Your task to perform on an android device: open sync settings in chrome Image 0: 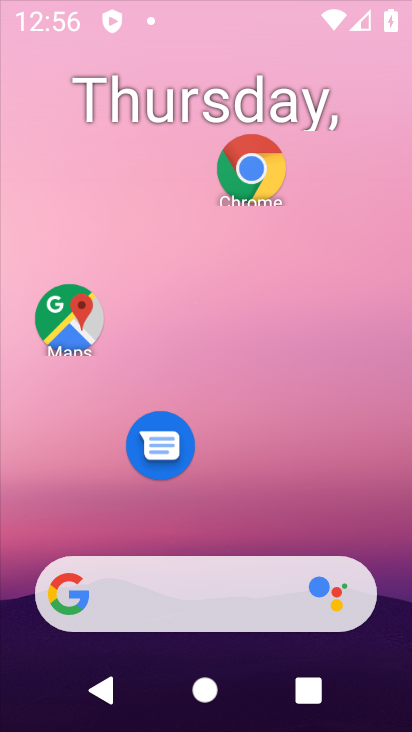
Step 0: click (202, 143)
Your task to perform on an android device: open sync settings in chrome Image 1: 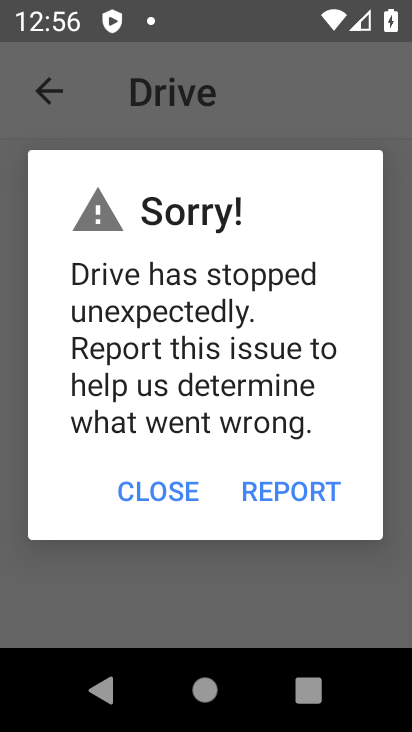
Step 1: press home button
Your task to perform on an android device: open sync settings in chrome Image 2: 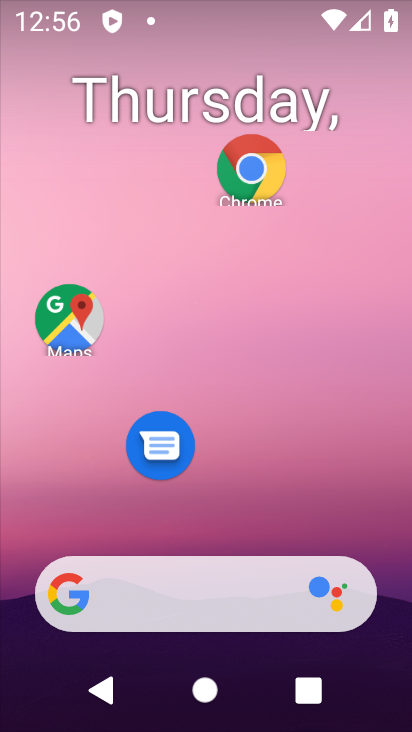
Step 2: drag from (236, 619) to (211, 198)
Your task to perform on an android device: open sync settings in chrome Image 3: 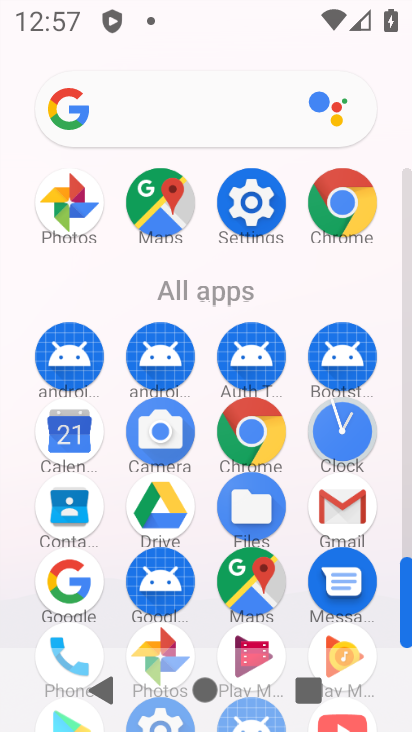
Step 3: click (332, 221)
Your task to perform on an android device: open sync settings in chrome Image 4: 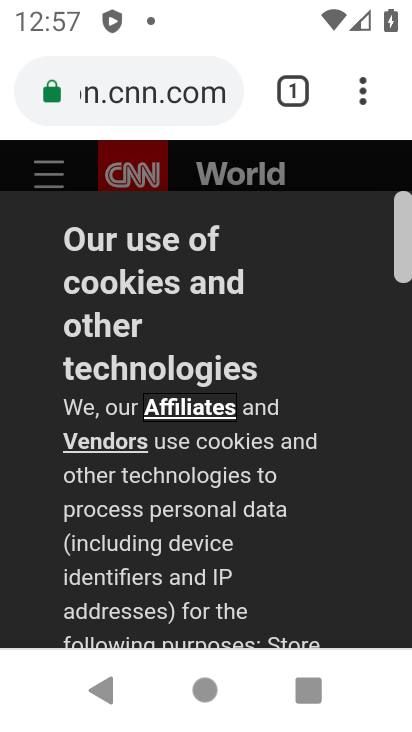
Step 4: click (355, 103)
Your task to perform on an android device: open sync settings in chrome Image 5: 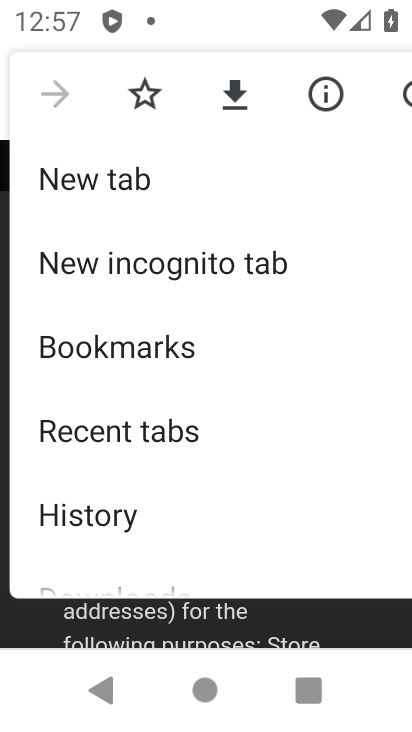
Step 5: drag from (173, 476) to (217, 212)
Your task to perform on an android device: open sync settings in chrome Image 6: 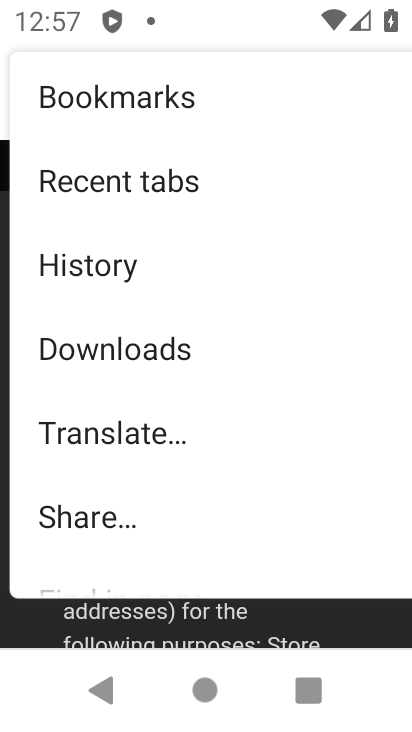
Step 6: drag from (203, 446) to (209, 262)
Your task to perform on an android device: open sync settings in chrome Image 7: 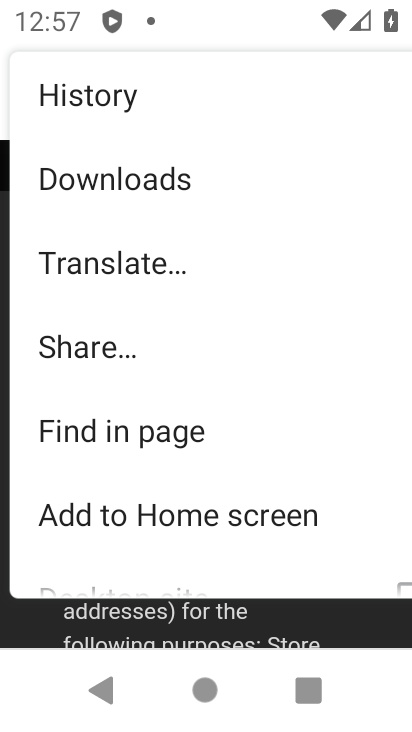
Step 7: drag from (162, 447) to (183, 279)
Your task to perform on an android device: open sync settings in chrome Image 8: 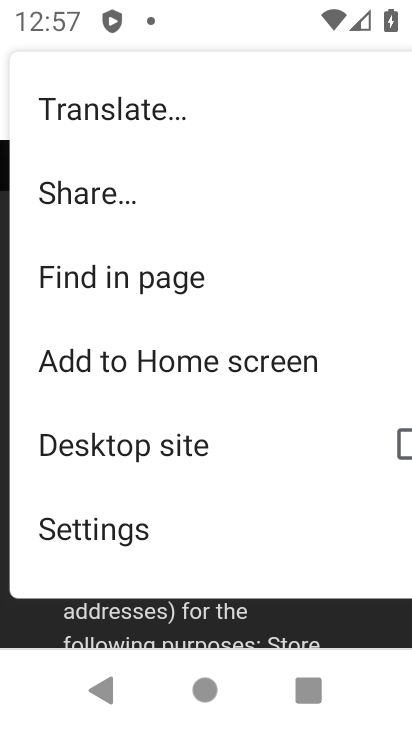
Step 8: click (124, 519)
Your task to perform on an android device: open sync settings in chrome Image 9: 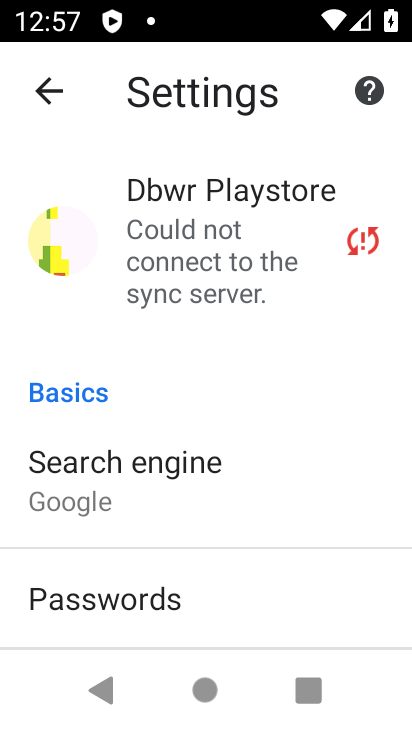
Step 9: drag from (210, 580) to (208, 277)
Your task to perform on an android device: open sync settings in chrome Image 10: 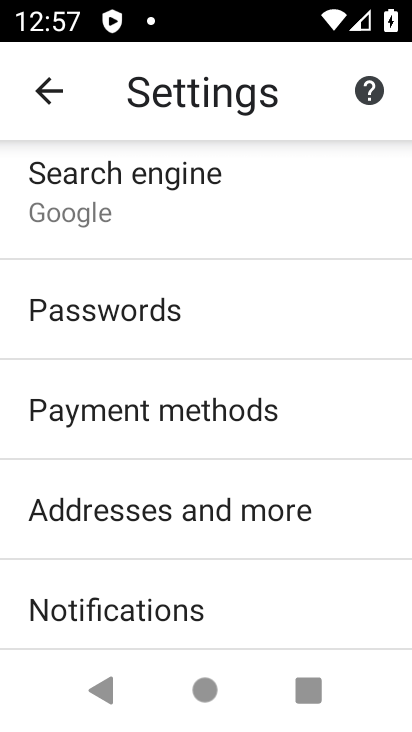
Step 10: drag from (135, 591) to (182, 349)
Your task to perform on an android device: open sync settings in chrome Image 11: 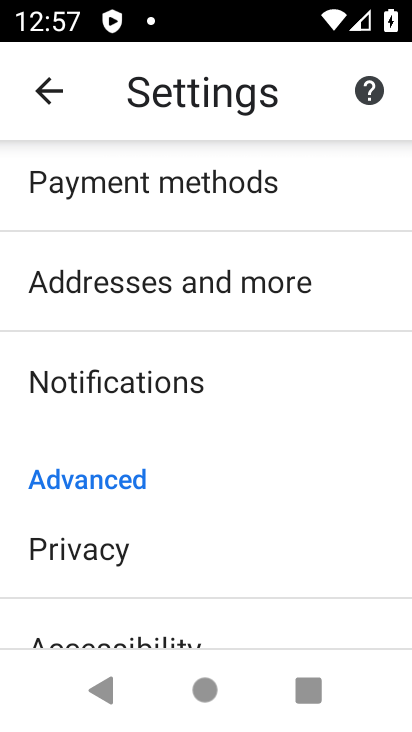
Step 11: drag from (182, 600) to (186, 361)
Your task to perform on an android device: open sync settings in chrome Image 12: 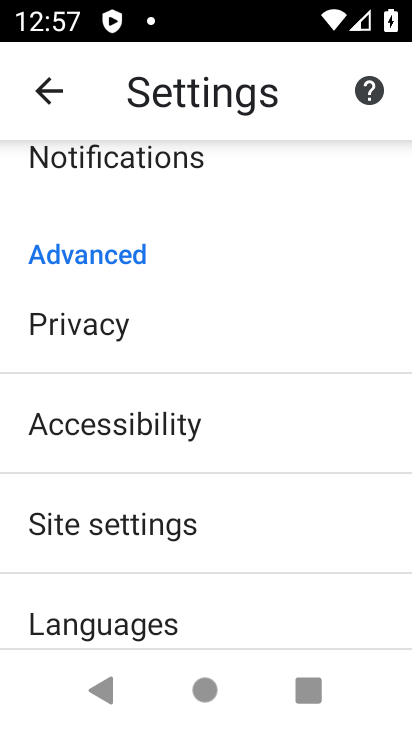
Step 12: click (139, 534)
Your task to perform on an android device: open sync settings in chrome Image 13: 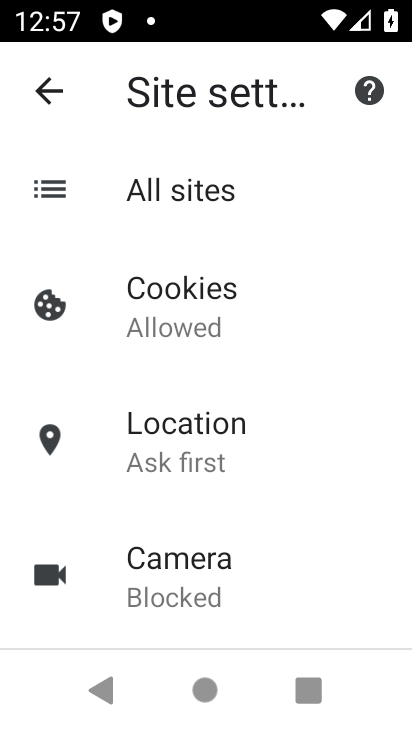
Step 13: drag from (170, 539) to (223, 246)
Your task to perform on an android device: open sync settings in chrome Image 14: 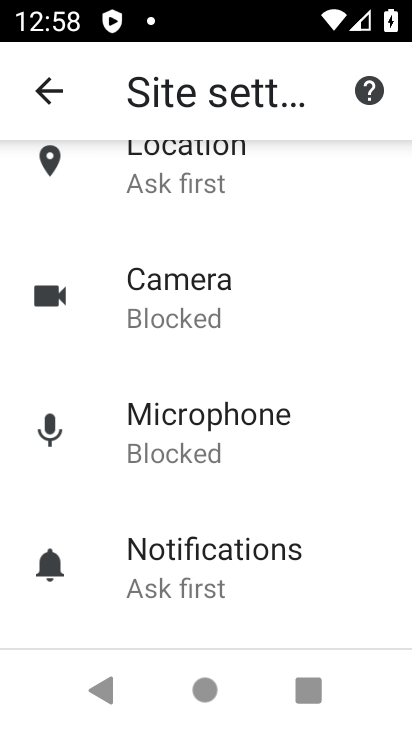
Step 14: drag from (199, 504) to (183, 289)
Your task to perform on an android device: open sync settings in chrome Image 15: 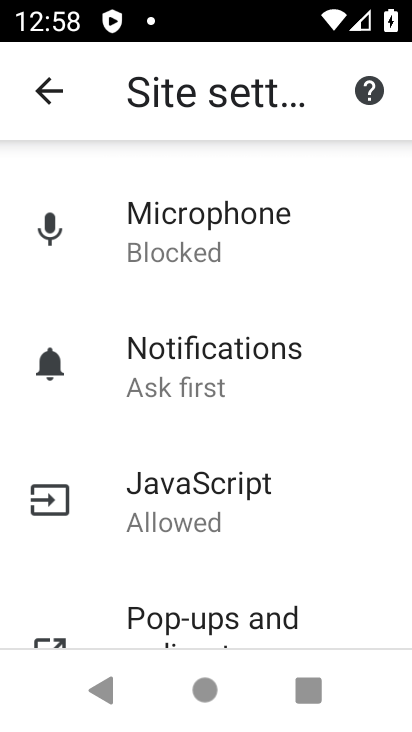
Step 15: drag from (200, 616) to (244, 333)
Your task to perform on an android device: open sync settings in chrome Image 16: 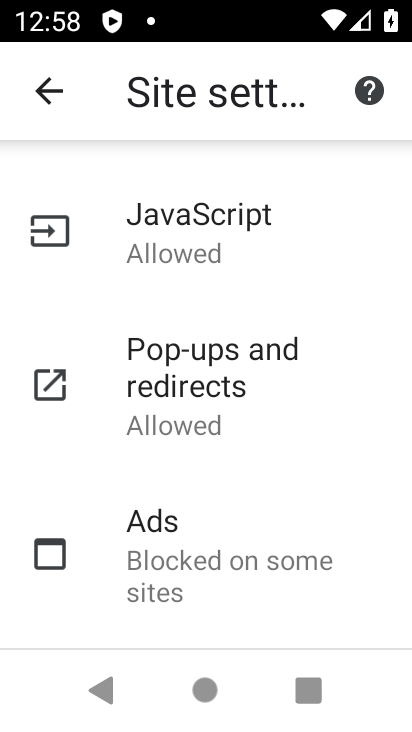
Step 16: drag from (203, 538) to (227, 376)
Your task to perform on an android device: open sync settings in chrome Image 17: 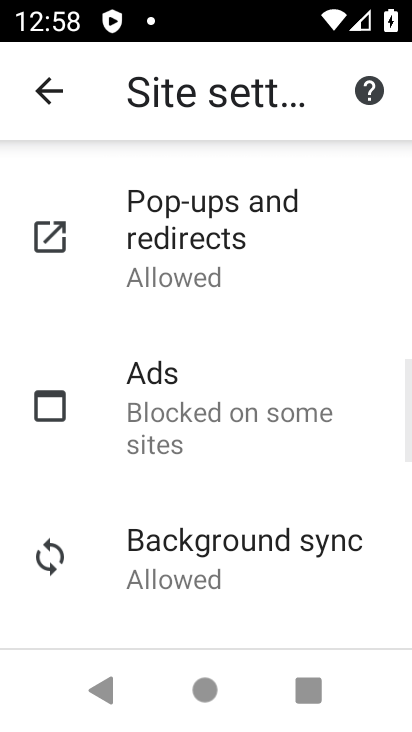
Step 17: click (212, 529)
Your task to perform on an android device: open sync settings in chrome Image 18: 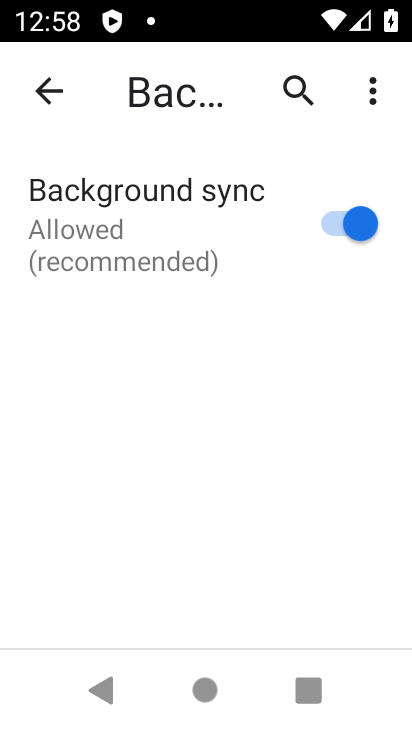
Step 18: task complete